Your task to perform on an android device: open device folders in google photos Image 0: 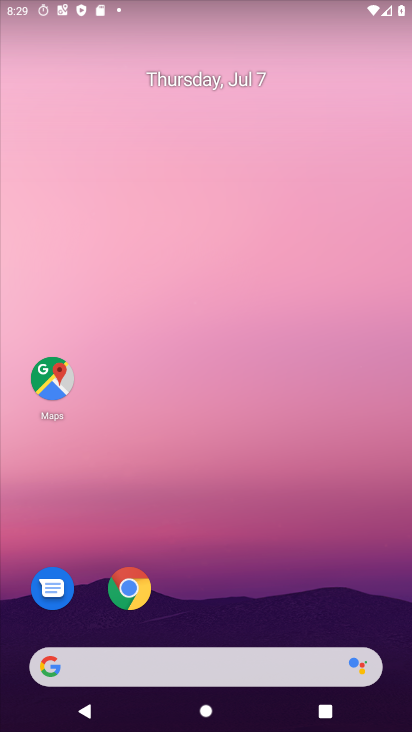
Step 0: drag from (191, 665) to (279, 210)
Your task to perform on an android device: open device folders in google photos Image 1: 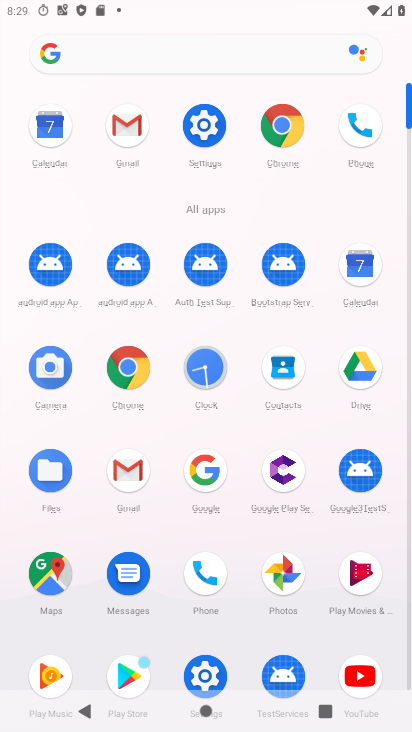
Step 1: click (292, 579)
Your task to perform on an android device: open device folders in google photos Image 2: 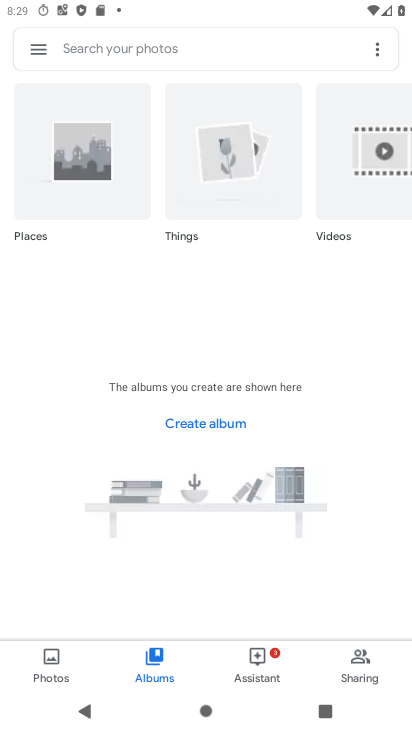
Step 2: click (42, 51)
Your task to perform on an android device: open device folders in google photos Image 3: 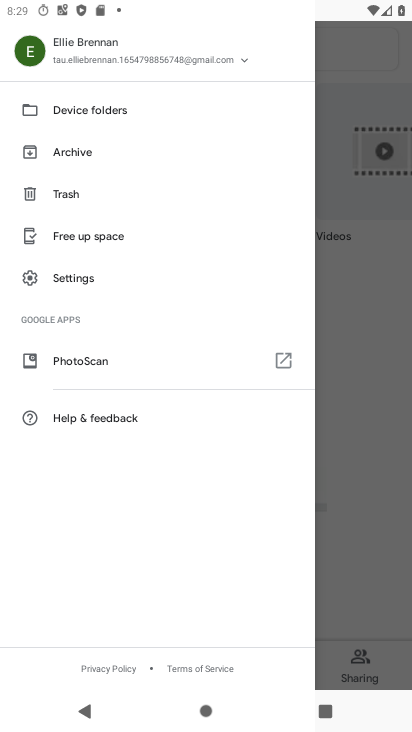
Step 3: click (95, 105)
Your task to perform on an android device: open device folders in google photos Image 4: 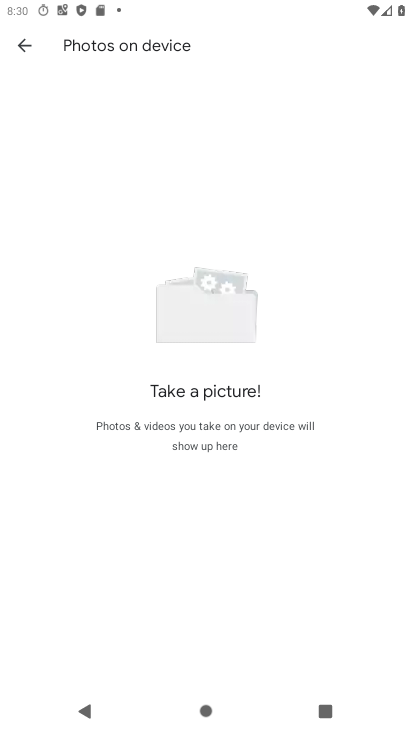
Step 4: task complete